Your task to perform on an android device: Open calendar and show me the fourth week of next month Image 0: 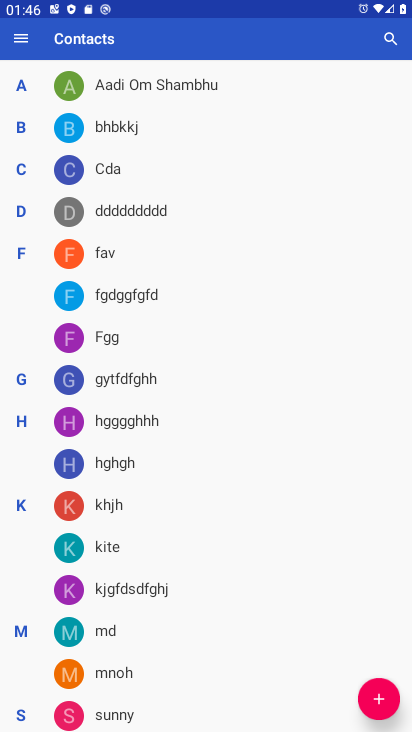
Step 0: press home button
Your task to perform on an android device: Open calendar and show me the fourth week of next month Image 1: 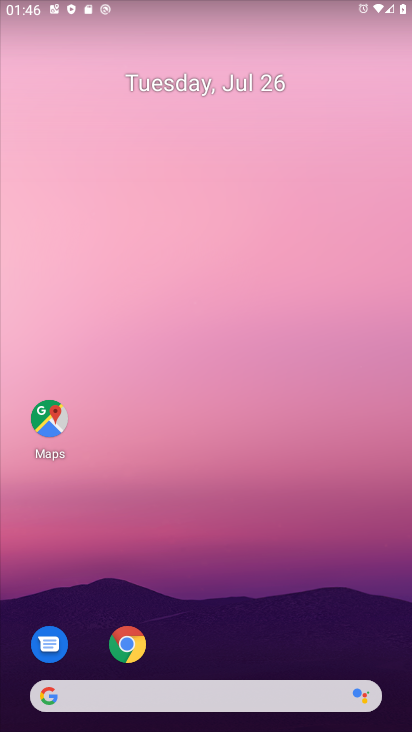
Step 1: drag from (164, 650) to (172, 73)
Your task to perform on an android device: Open calendar and show me the fourth week of next month Image 2: 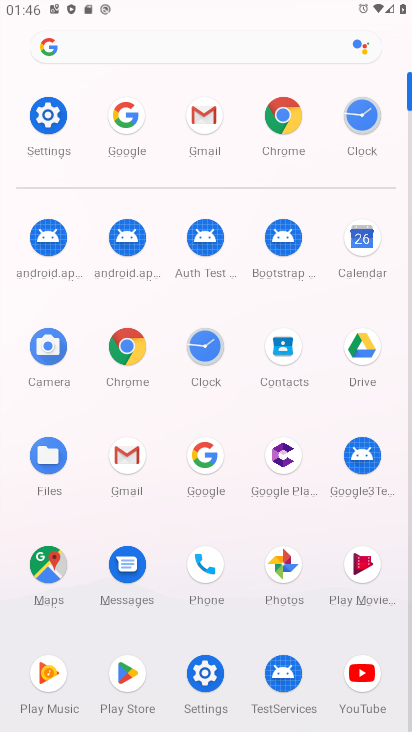
Step 2: click (360, 233)
Your task to perform on an android device: Open calendar and show me the fourth week of next month Image 3: 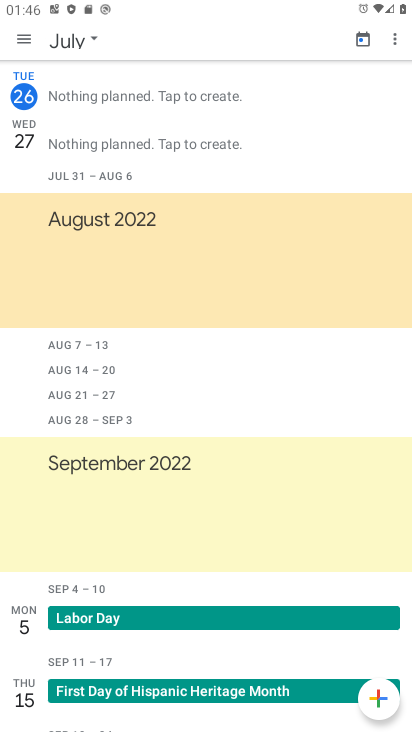
Step 3: click (30, 30)
Your task to perform on an android device: Open calendar and show me the fourth week of next month Image 4: 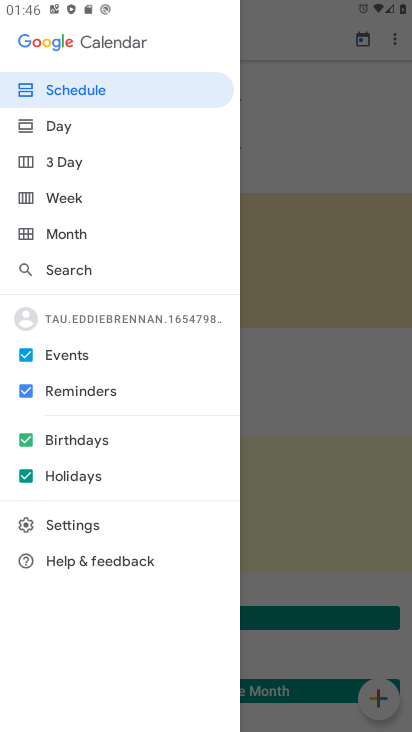
Step 4: click (86, 223)
Your task to perform on an android device: Open calendar and show me the fourth week of next month Image 5: 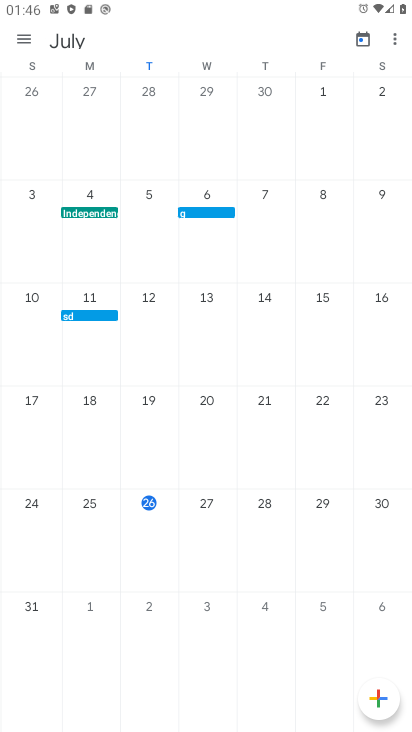
Step 5: drag from (343, 346) to (0, 332)
Your task to perform on an android device: Open calendar and show me the fourth week of next month Image 6: 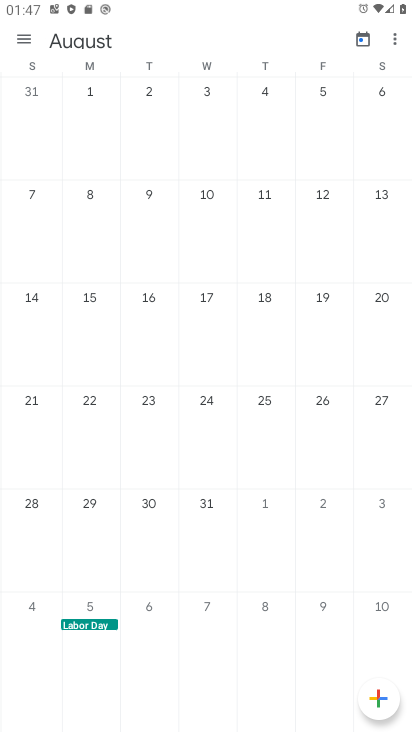
Step 6: click (20, 31)
Your task to perform on an android device: Open calendar and show me the fourth week of next month Image 7: 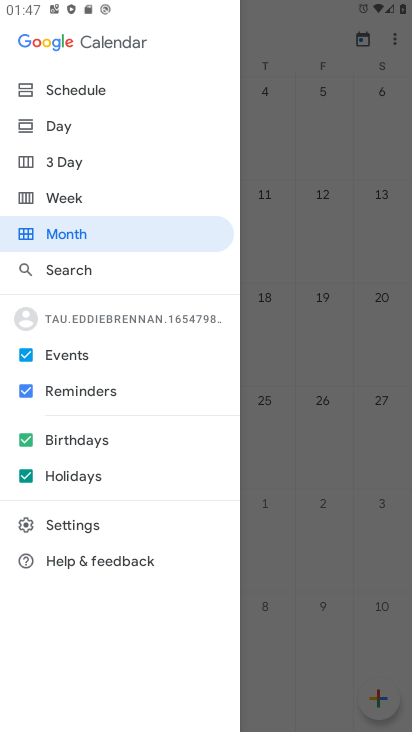
Step 7: click (85, 194)
Your task to perform on an android device: Open calendar and show me the fourth week of next month Image 8: 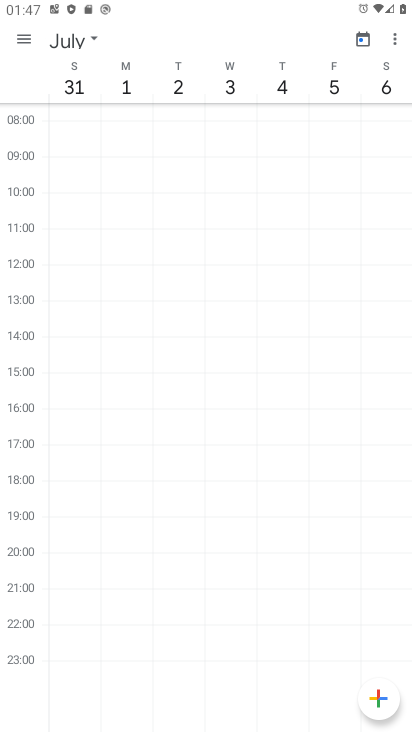
Step 8: task complete